Your task to perform on an android device: turn on airplane mode Image 0: 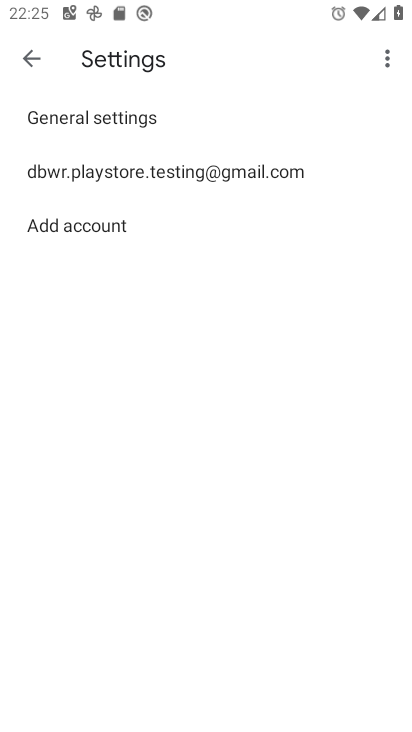
Step 0: press home button
Your task to perform on an android device: turn on airplane mode Image 1: 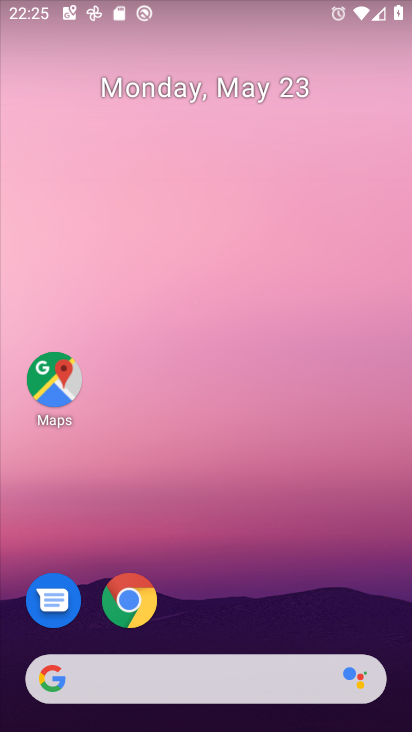
Step 1: drag from (191, 712) to (207, 162)
Your task to perform on an android device: turn on airplane mode Image 2: 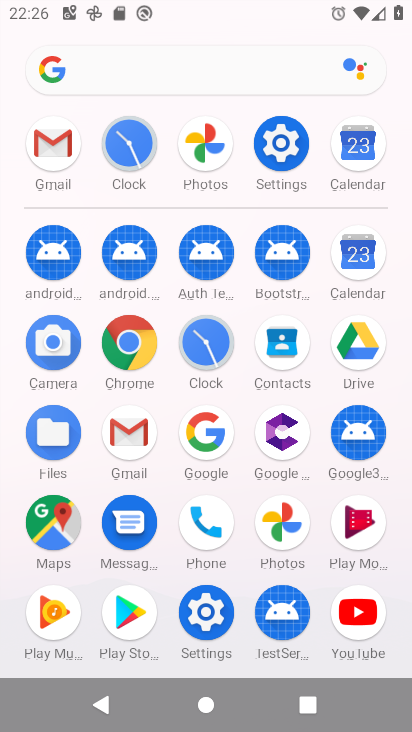
Step 2: click (276, 142)
Your task to perform on an android device: turn on airplane mode Image 3: 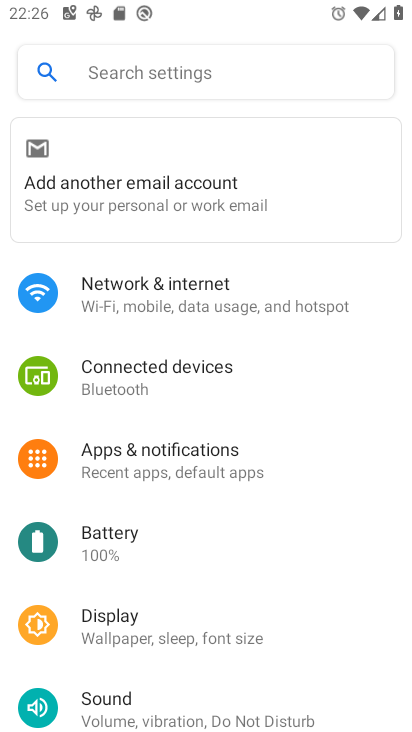
Step 3: click (168, 288)
Your task to perform on an android device: turn on airplane mode Image 4: 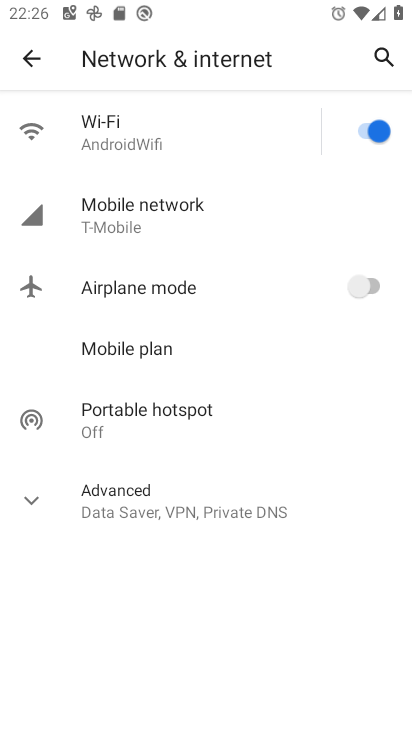
Step 4: click (372, 283)
Your task to perform on an android device: turn on airplane mode Image 5: 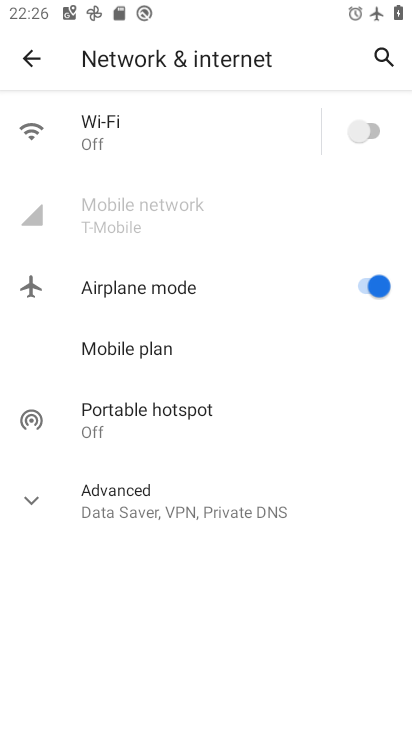
Step 5: task complete